Your task to perform on an android device: search for starred emails in the gmail app Image 0: 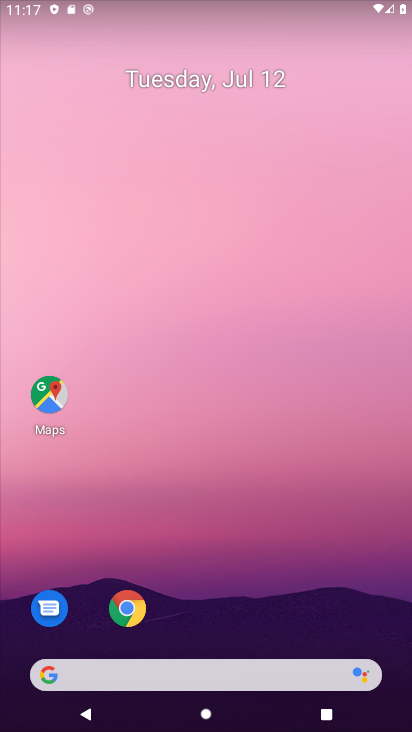
Step 0: drag from (229, 711) to (249, 137)
Your task to perform on an android device: search for starred emails in the gmail app Image 1: 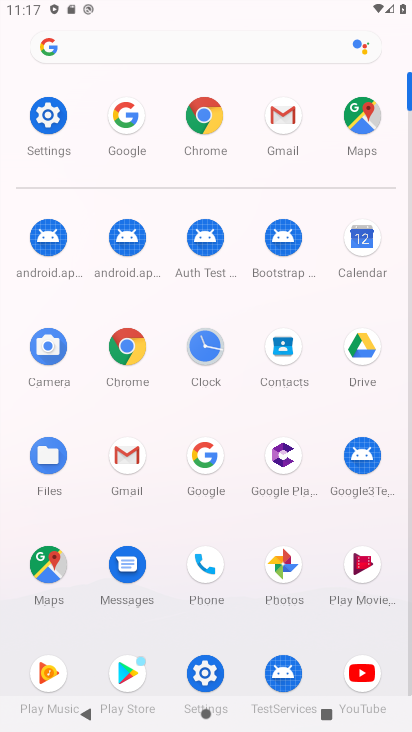
Step 1: click (130, 458)
Your task to perform on an android device: search for starred emails in the gmail app Image 2: 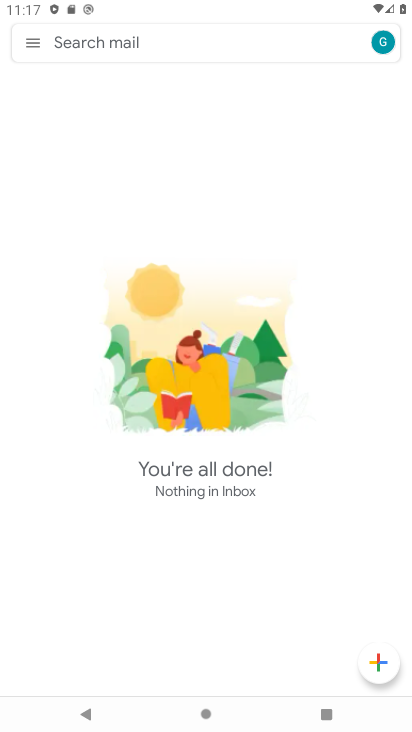
Step 2: click (29, 38)
Your task to perform on an android device: search for starred emails in the gmail app Image 3: 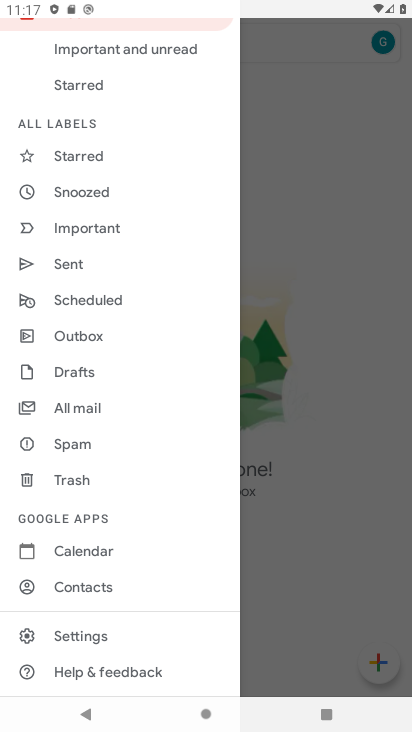
Step 3: click (72, 155)
Your task to perform on an android device: search for starred emails in the gmail app Image 4: 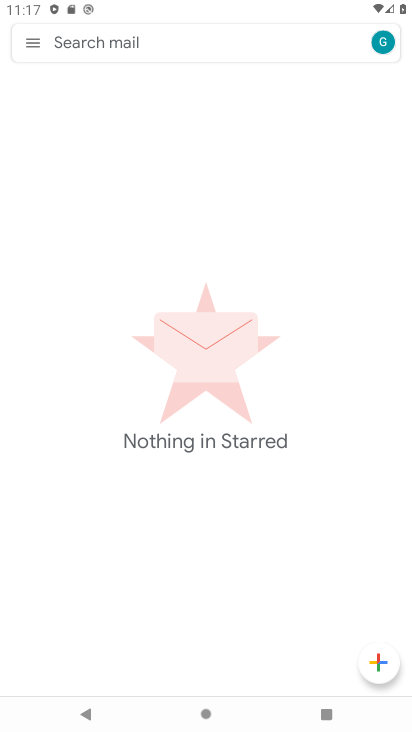
Step 4: task complete